Your task to perform on an android device: change the clock style Image 0: 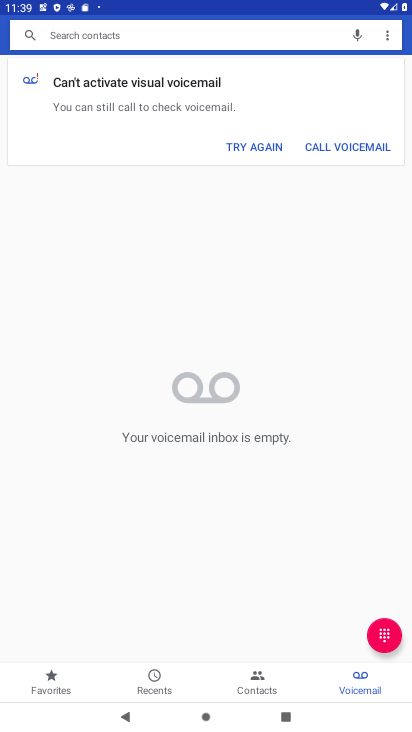
Step 0: task complete